Your task to perform on an android device: Search for Italian restaurants on Maps Image 0: 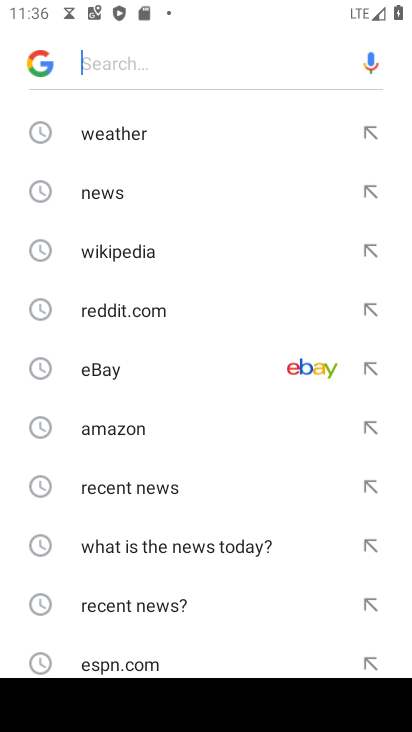
Step 0: press home button
Your task to perform on an android device: Search for Italian restaurants on Maps Image 1: 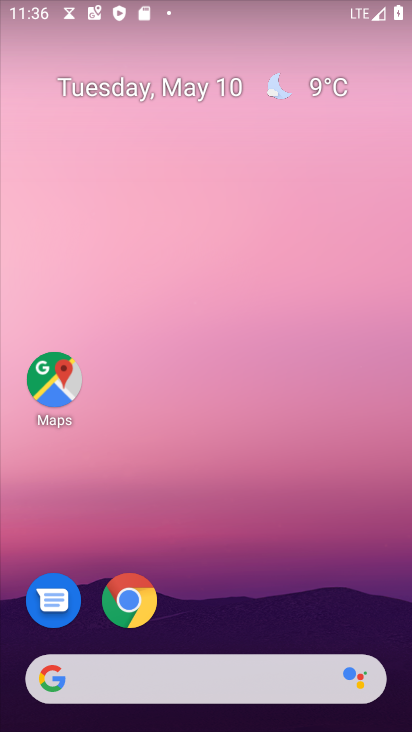
Step 1: click (42, 388)
Your task to perform on an android device: Search for Italian restaurants on Maps Image 2: 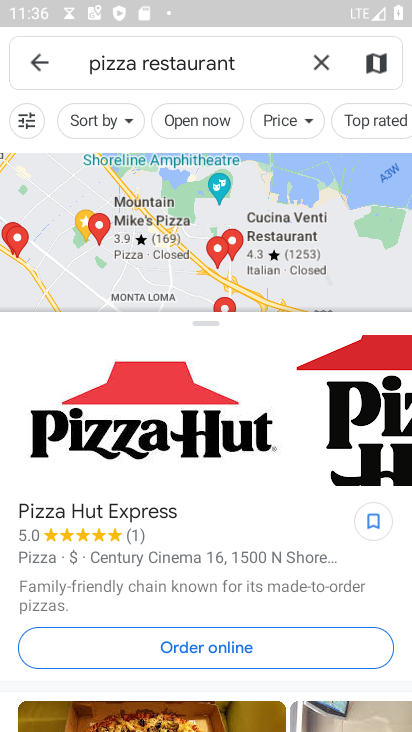
Step 2: click (311, 61)
Your task to perform on an android device: Search for Italian restaurants on Maps Image 3: 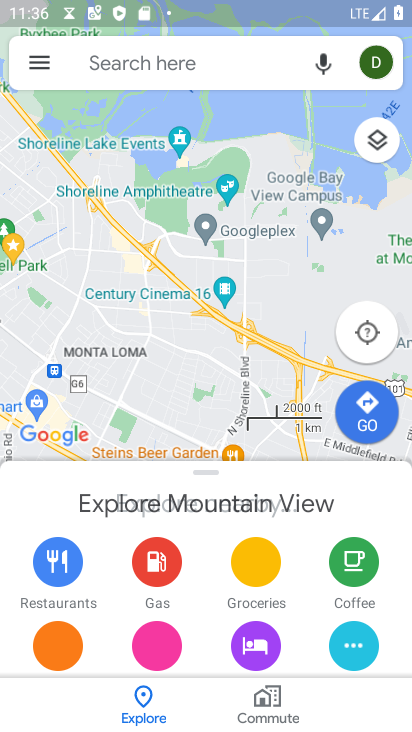
Step 3: click (159, 65)
Your task to perform on an android device: Search for Italian restaurants on Maps Image 4: 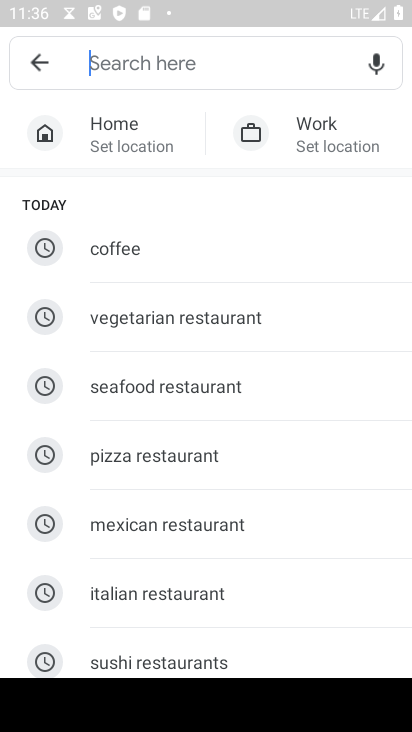
Step 4: click (140, 591)
Your task to perform on an android device: Search for Italian restaurants on Maps Image 5: 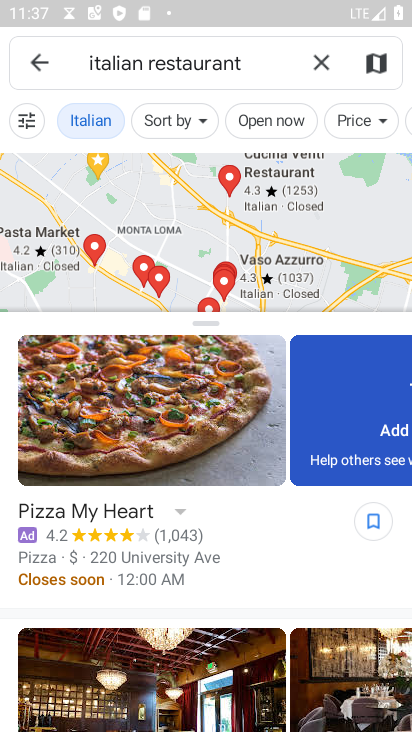
Step 5: task complete